Your task to perform on an android device: Go to ESPN.com Image 0: 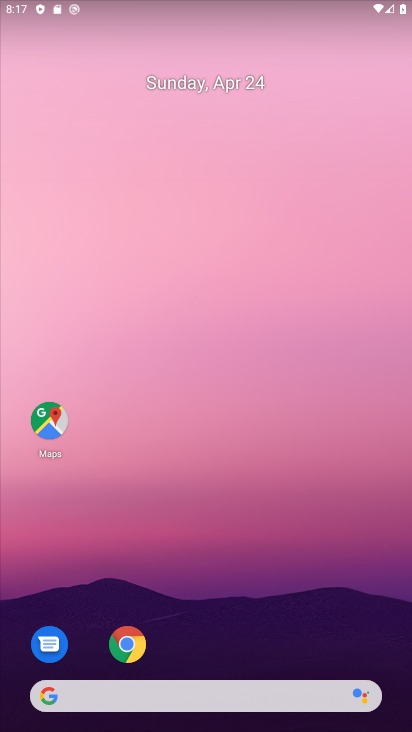
Step 0: drag from (248, 609) to (355, 241)
Your task to perform on an android device: Go to ESPN.com Image 1: 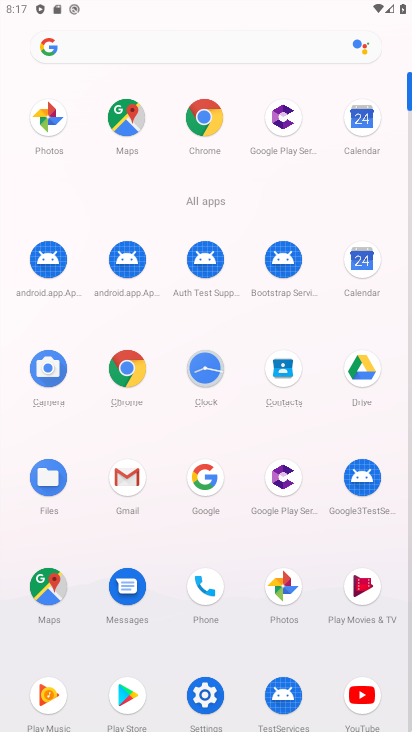
Step 1: click (214, 55)
Your task to perform on an android device: Go to ESPN.com Image 2: 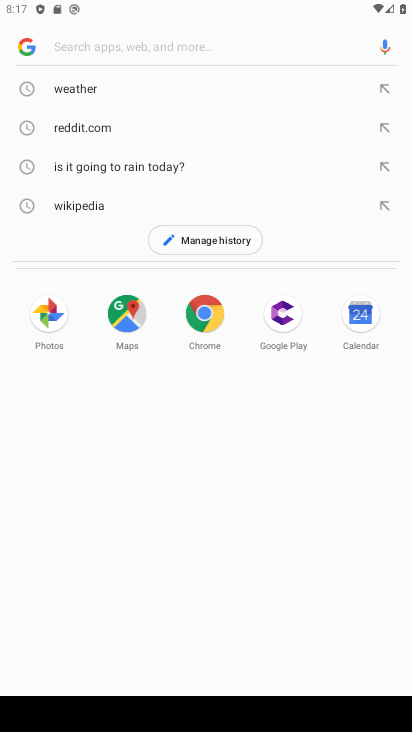
Step 2: click (182, 36)
Your task to perform on an android device: Go to ESPN.com Image 3: 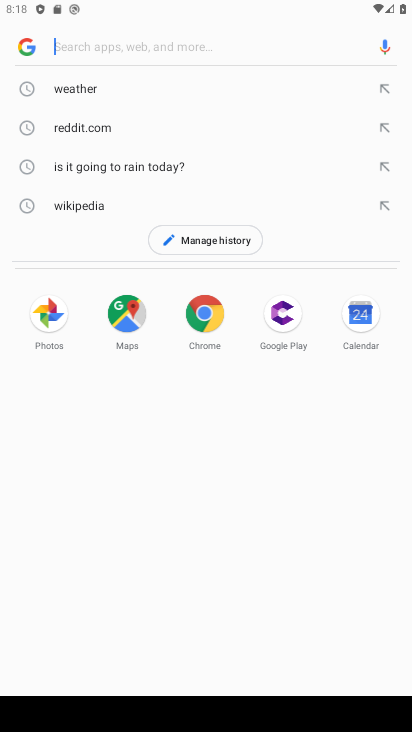
Step 3: type "espn"
Your task to perform on an android device: Go to ESPN.com Image 4: 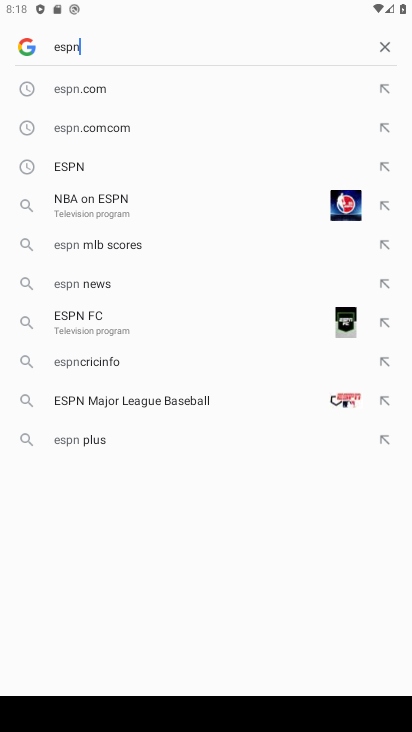
Step 4: click (88, 87)
Your task to perform on an android device: Go to ESPN.com Image 5: 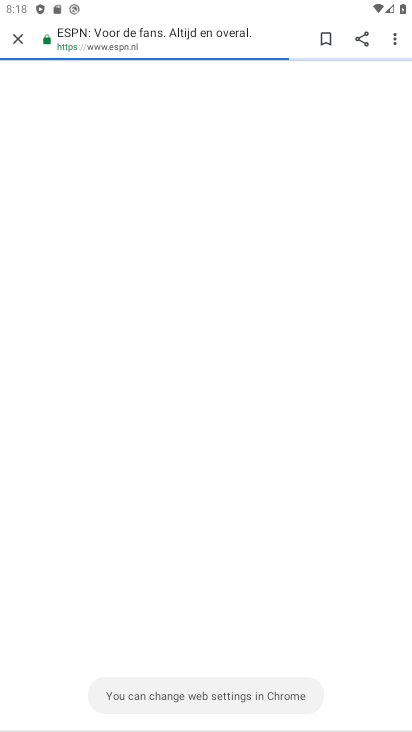
Step 5: task complete